Your task to perform on an android device: snooze an email in the gmail app Image 0: 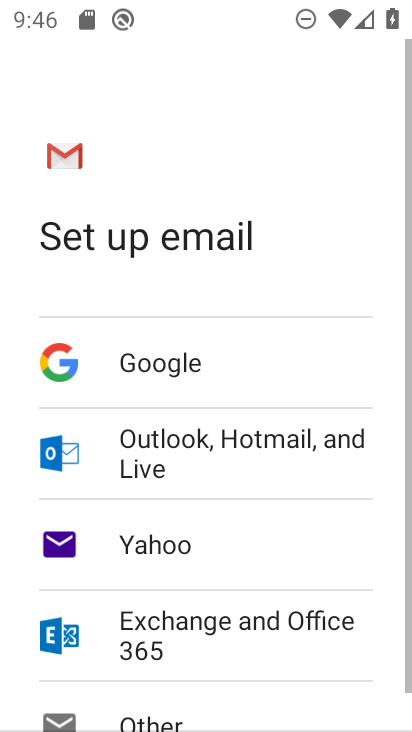
Step 0: press home button
Your task to perform on an android device: snooze an email in the gmail app Image 1: 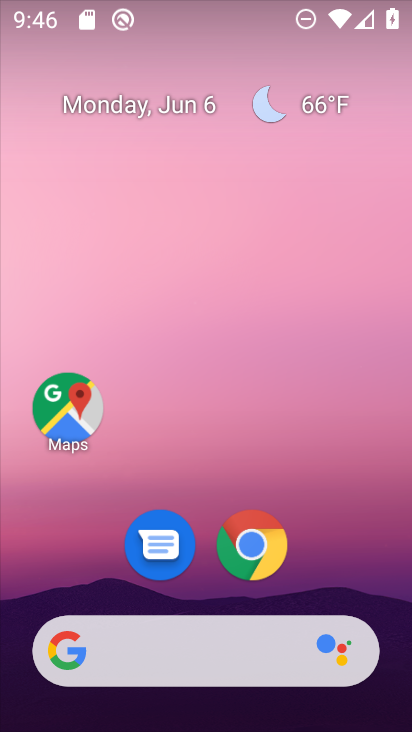
Step 1: drag from (128, 591) to (131, 235)
Your task to perform on an android device: snooze an email in the gmail app Image 2: 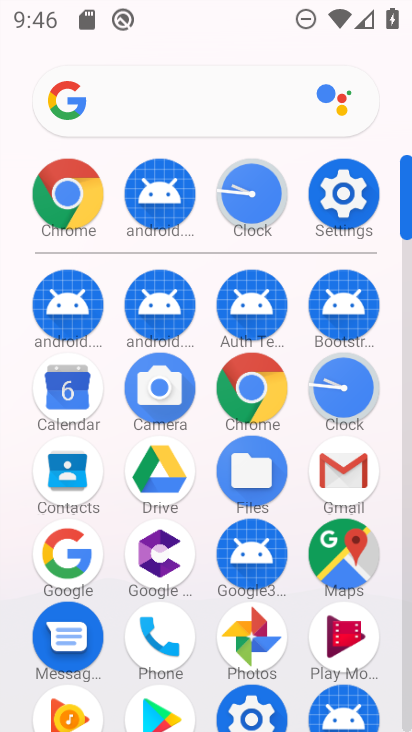
Step 2: click (344, 478)
Your task to perform on an android device: snooze an email in the gmail app Image 3: 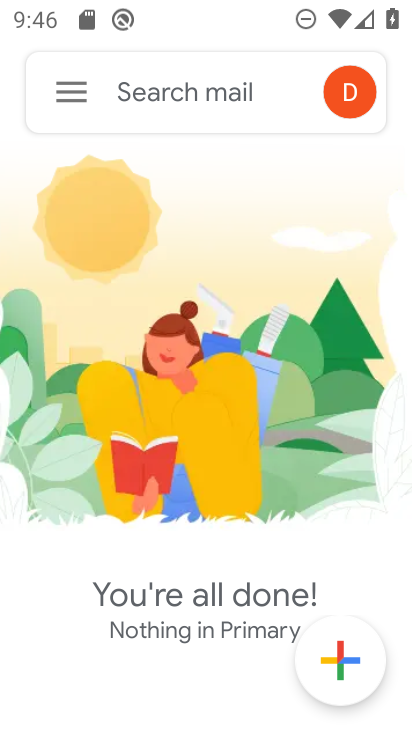
Step 3: click (82, 87)
Your task to perform on an android device: snooze an email in the gmail app Image 4: 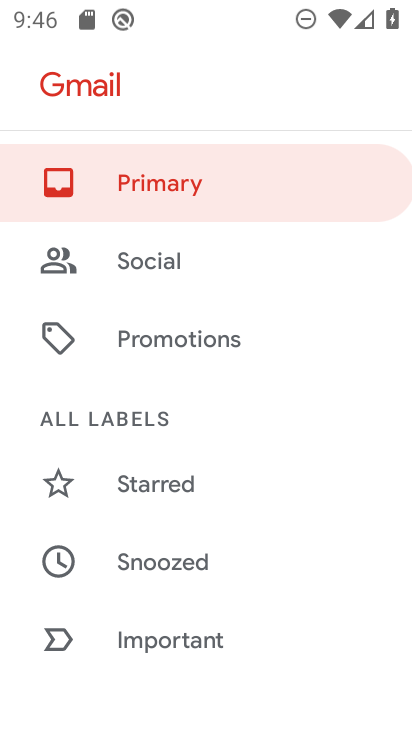
Step 4: drag from (144, 486) to (143, 227)
Your task to perform on an android device: snooze an email in the gmail app Image 5: 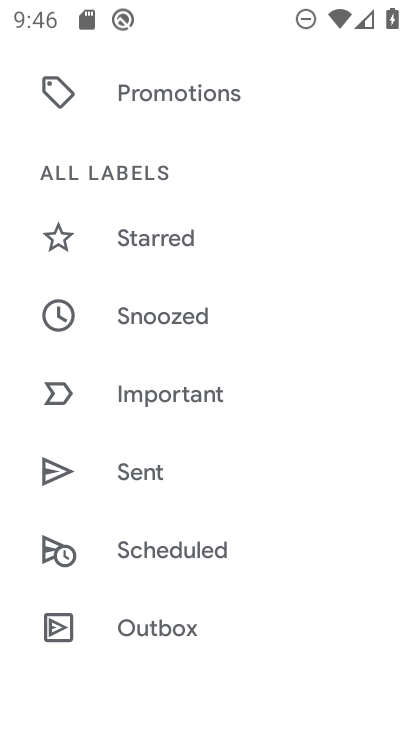
Step 5: drag from (179, 570) to (125, 298)
Your task to perform on an android device: snooze an email in the gmail app Image 6: 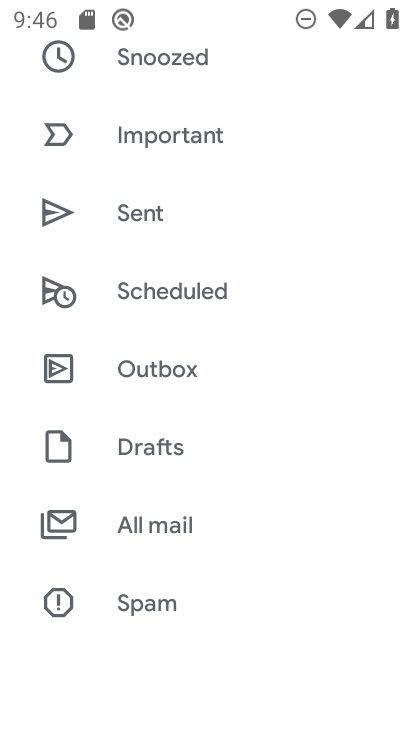
Step 6: click (151, 533)
Your task to perform on an android device: snooze an email in the gmail app Image 7: 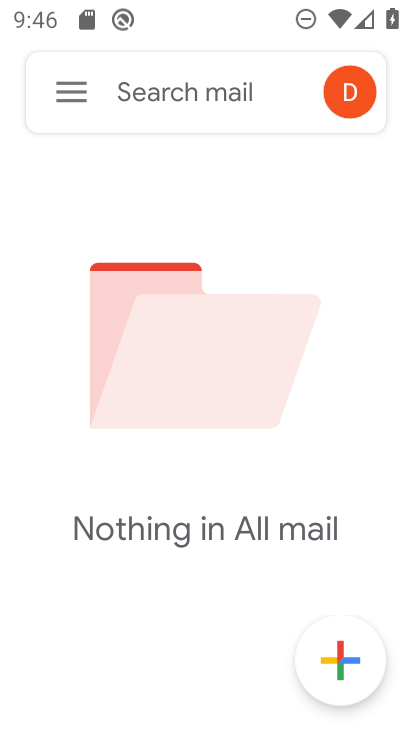
Step 7: task complete